Your task to perform on an android device: Go to CNN.com Image 0: 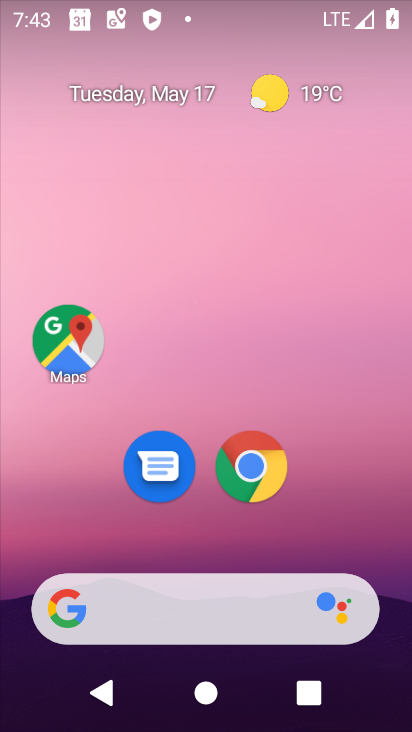
Step 0: click (253, 458)
Your task to perform on an android device: Go to CNN.com Image 1: 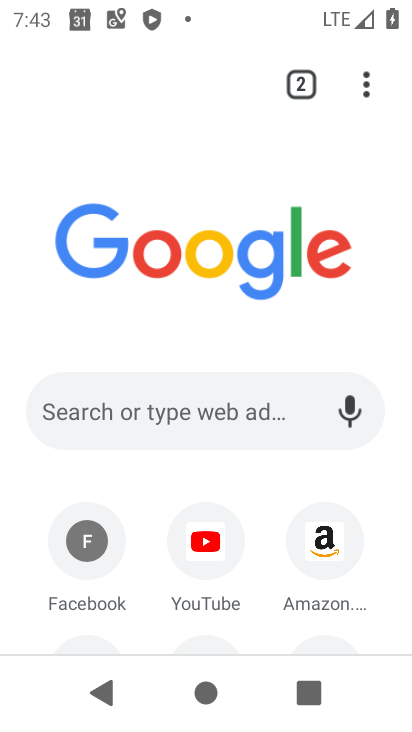
Step 1: click (162, 394)
Your task to perform on an android device: Go to CNN.com Image 2: 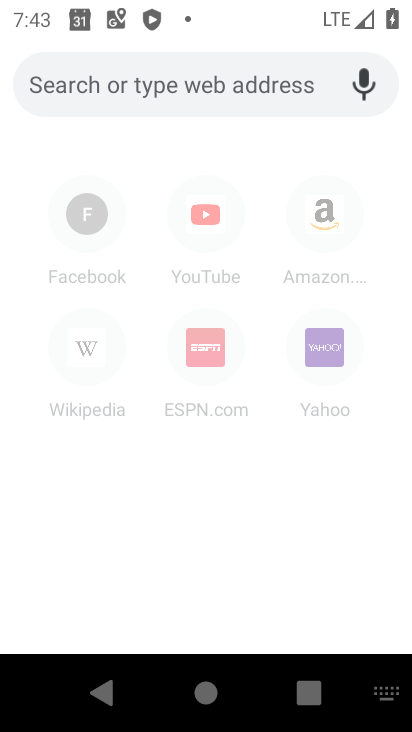
Step 2: type "cnn.com"
Your task to perform on an android device: Go to CNN.com Image 3: 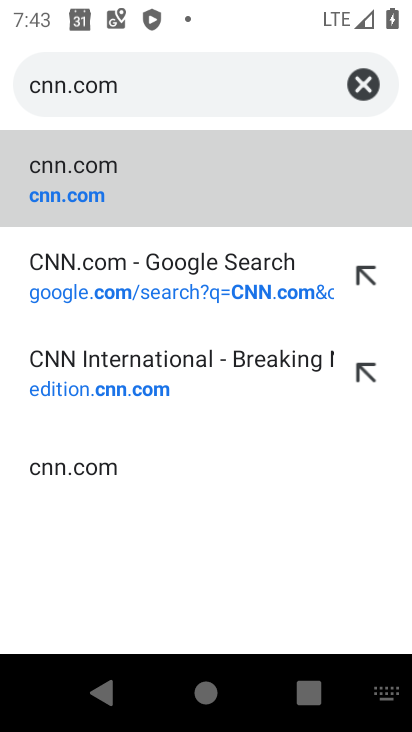
Step 3: click (91, 171)
Your task to perform on an android device: Go to CNN.com Image 4: 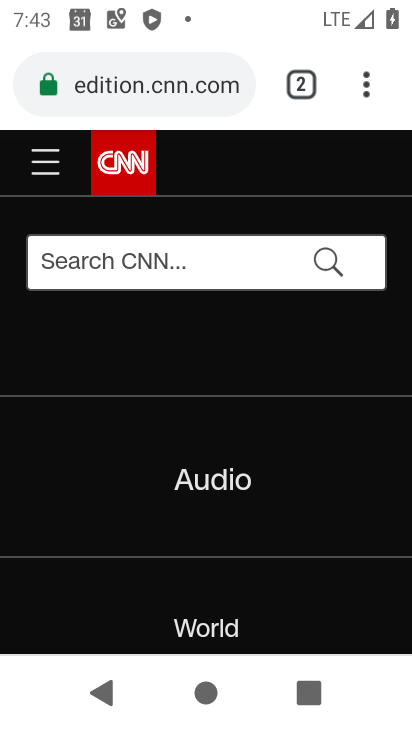
Step 4: task complete